Your task to perform on an android device: Show me popular games on the Play Store Image 0: 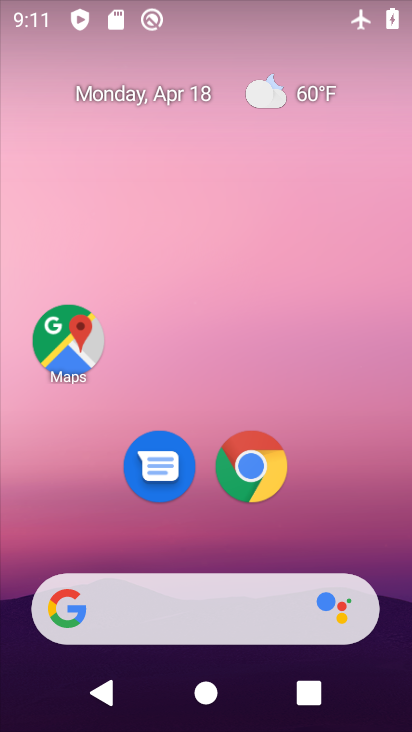
Step 0: drag from (210, 547) to (182, 5)
Your task to perform on an android device: Show me popular games on the Play Store Image 1: 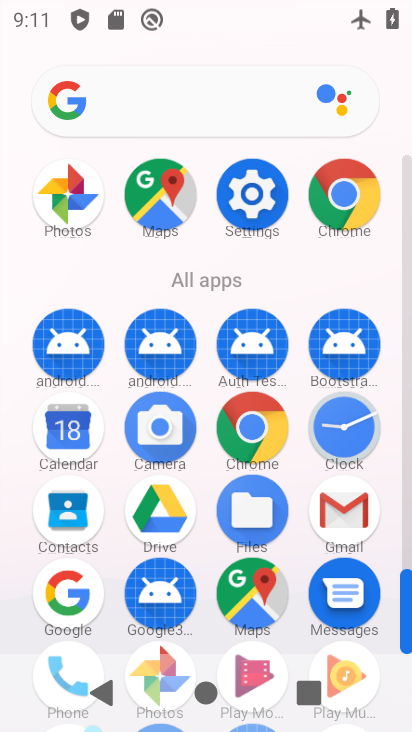
Step 1: drag from (205, 599) to (164, 104)
Your task to perform on an android device: Show me popular games on the Play Store Image 2: 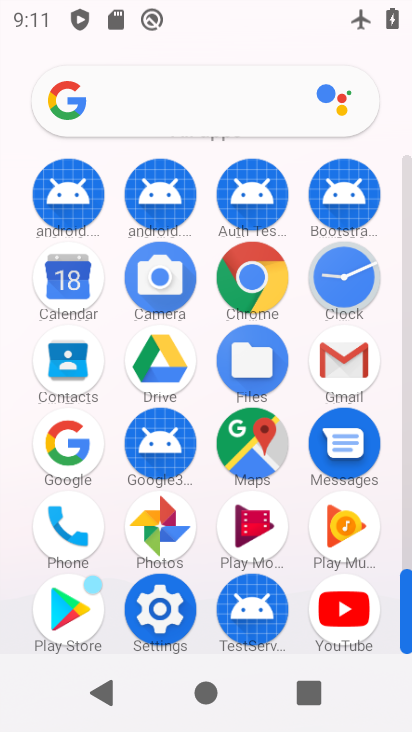
Step 2: click (57, 610)
Your task to perform on an android device: Show me popular games on the Play Store Image 3: 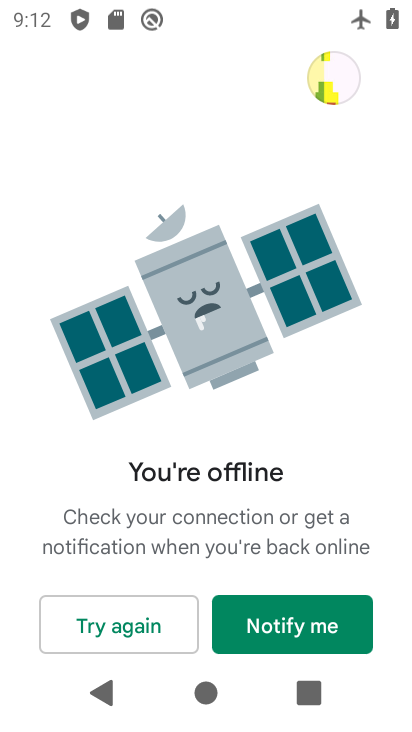
Step 3: task complete